Your task to perform on an android device: Go to accessibility settings Image 0: 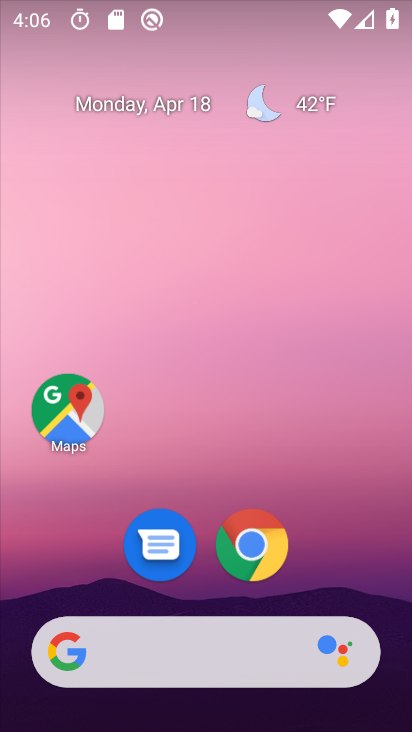
Step 0: drag from (332, 525) to (314, 82)
Your task to perform on an android device: Go to accessibility settings Image 1: 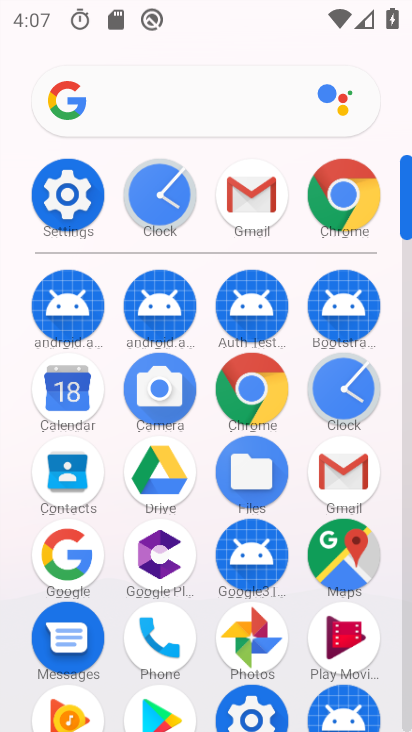
Step 1: drag from (203, 583) to (198, 307)
Your task to perform on an android device: Go to accessibility settings Image 2: 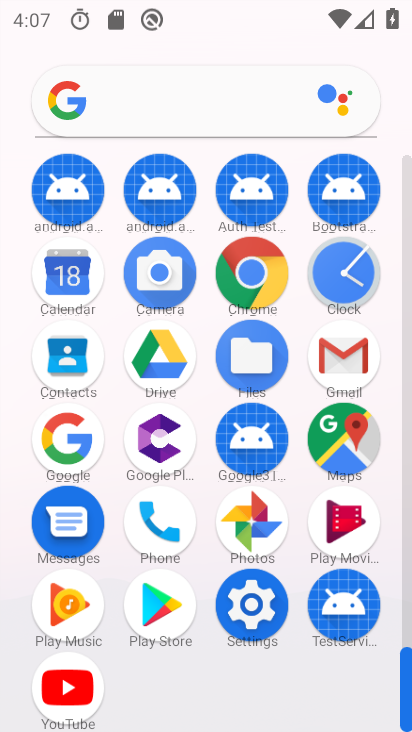
Step 2: click (265, 617)
Your task to perform on an android device: Go to accessibility settings Image 3: 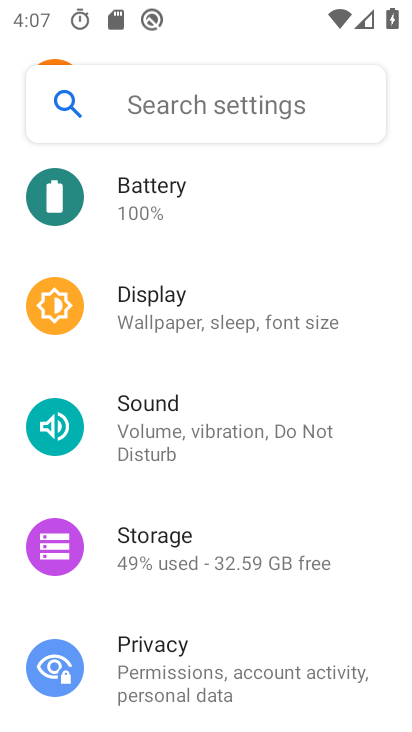
Step 3: drag from (362, 439) to (353, 382)
Your task to perform on an android device: Go to accessibility settings Image 4: 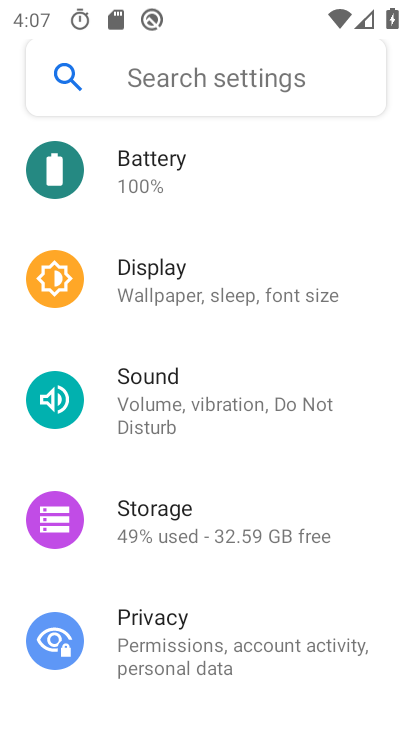
Step 4: drag from (359, 540) to (361, 393)
Your task to perform on an android device: Go to accessibility settings Image 5: 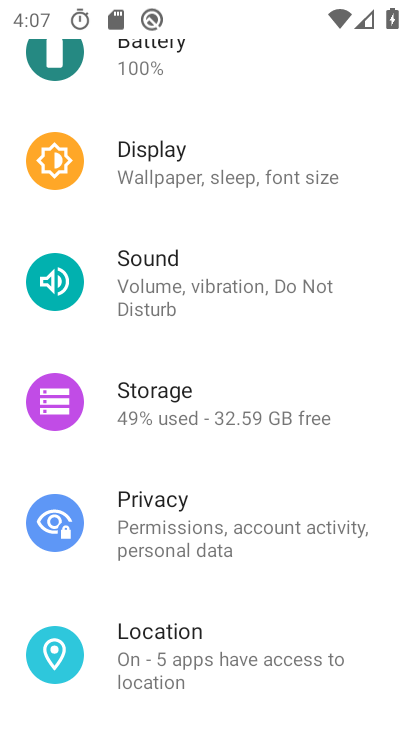
Step 5: drag from (377, 558) to (376, 432)
Your task to perform on an android device: Go to accessibility settings Image 6: 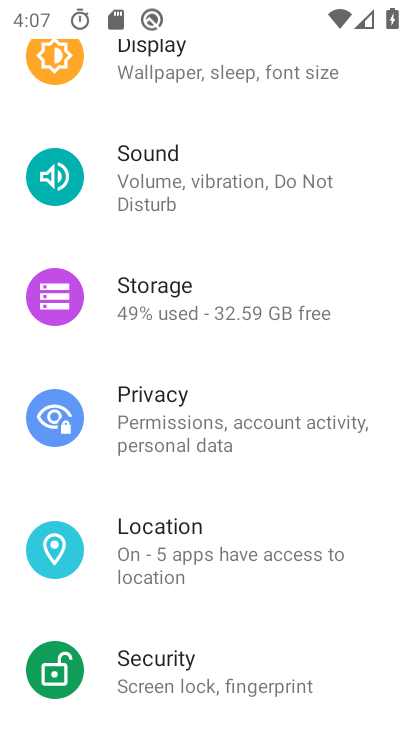
Step 6: drag from (367, 631) to (360, 461)
Your task to perform on an android device: Go to accessibility settings Image 7: 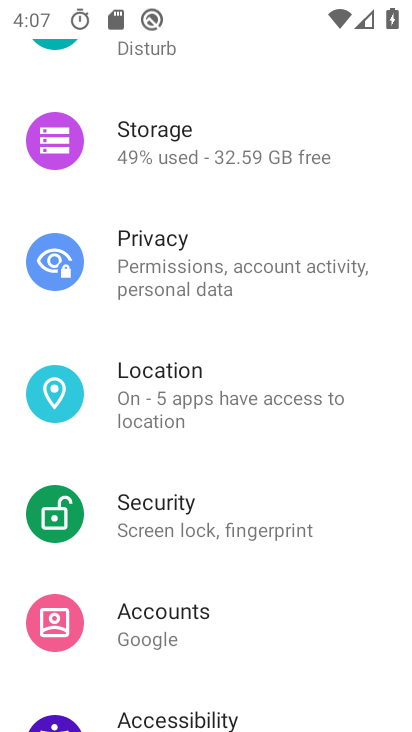
Step 7: drag from (350, 628) to (356, 460)
Your task to perform on an android device: Go to accessibility settings Image 8: 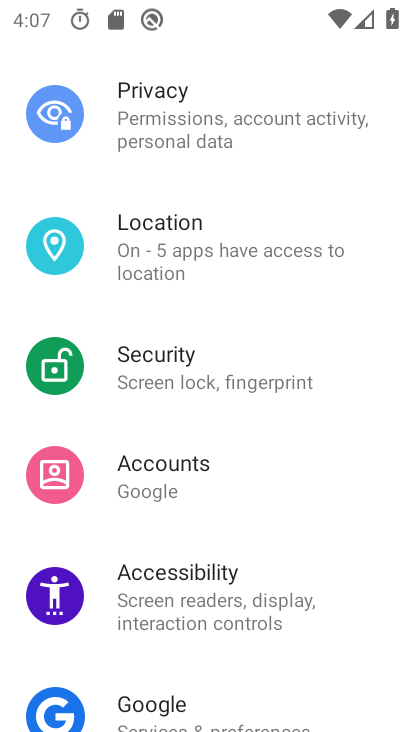
Step 8: drag from (361, 653) to (351, 383)
Your task to perform on an android device: Go to accessibility settings Image 9: 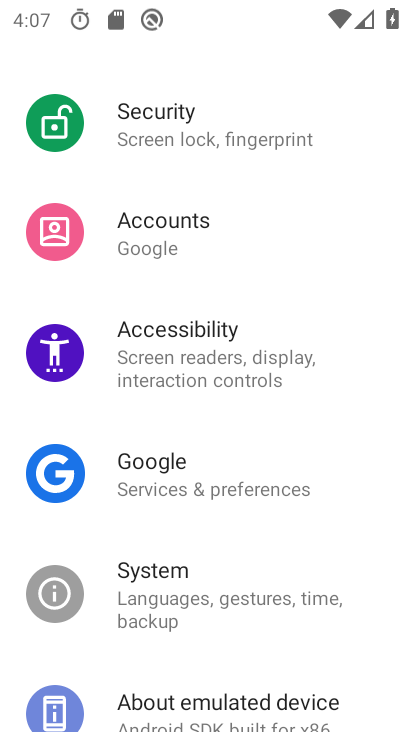
Step 9: click (182, 345)
Your task to perform on an android device: Go to accessibility settings Image 10: 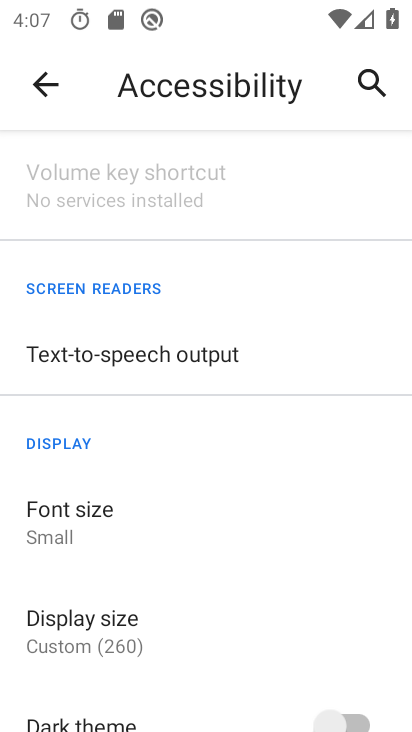
Step 10: task complete